Your task to perform on an android device: Set the phone to "Do not disturb". Image 0: 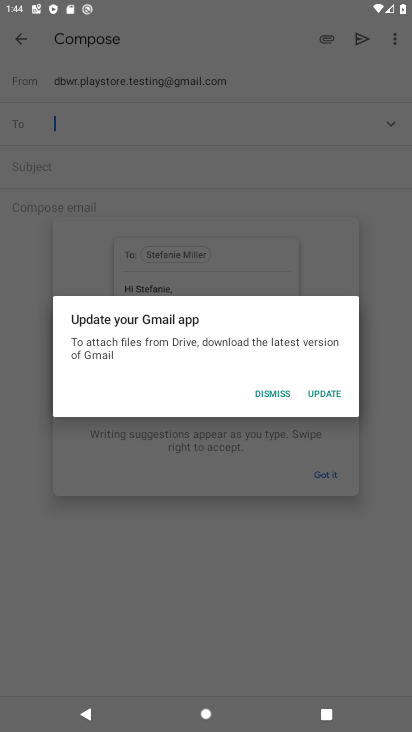
Step 0: press home button
Your task to perform on an android device: Set the phone to "Do not disturb". Image 1: 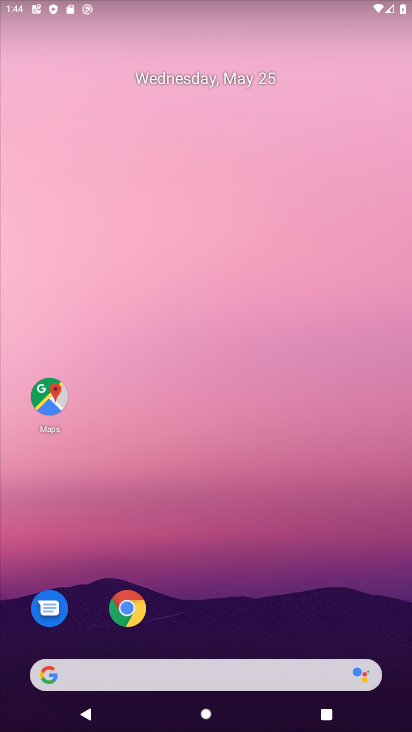
Step 1: drag from (138, 629) to (138, 300)
Your task to perform on an android device: Set the phone to "Do not disturb". Image 2: 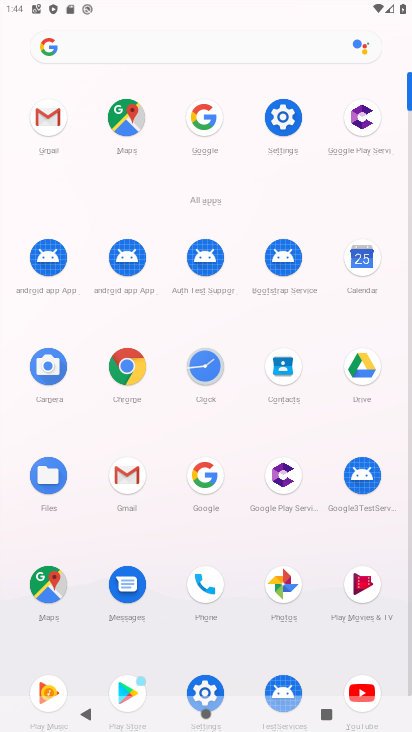
Step 2: click (294, 119)
Your task to perform on an android device: Set the phone to "Do not disturb". Image 3: 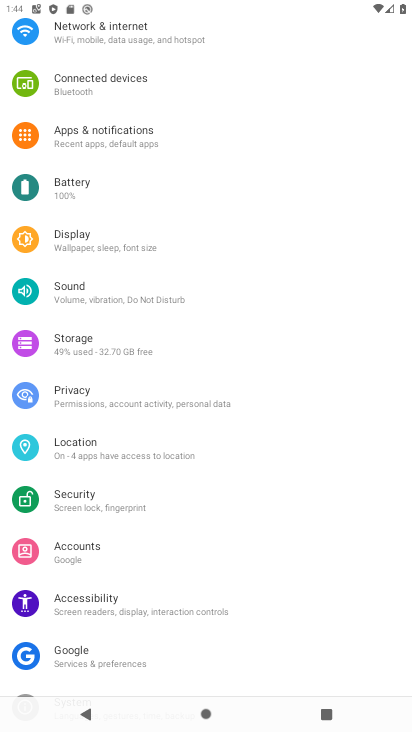
Step 3: click (156, 295)
Your task to perform on an android device: Set the phone to "Do not disturb". Image 4: 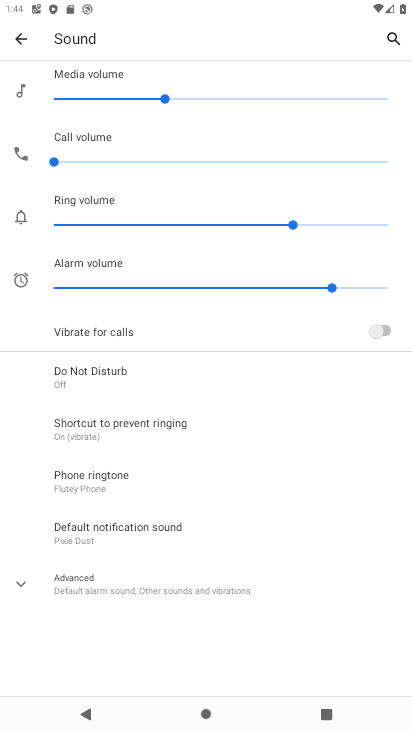
Step 4: click (128, 580)
Your task to perform on an android device: Set the phone to "Do not disturb". Image 5: 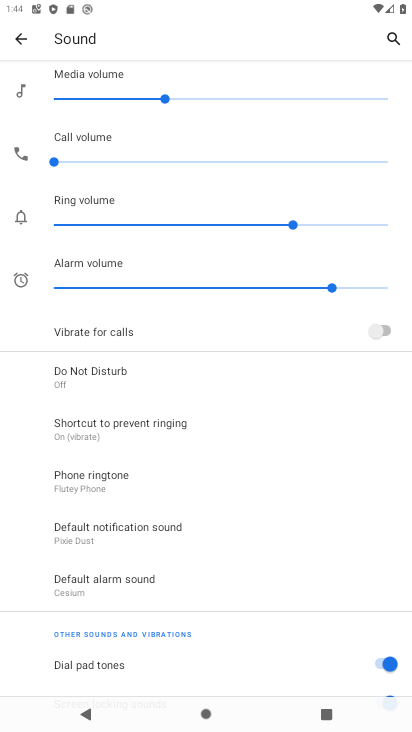
Step 5: drag from (98, 668) to (98, 338)
Your task to perform on an android device: Set the phone to "Do not disturb". Image 6: 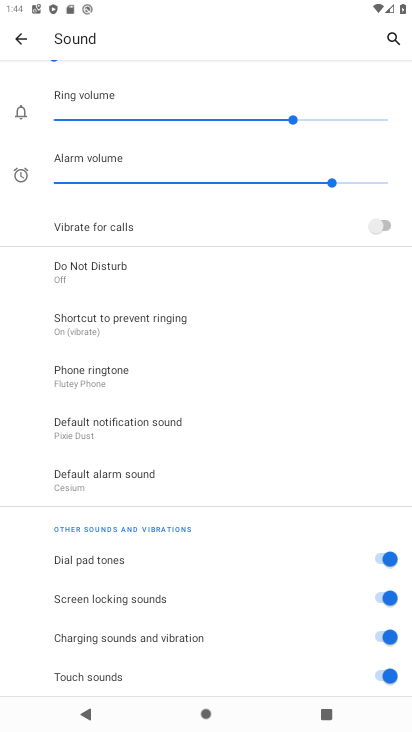
Step 6: click (80, 274)
Your task to perform on an android device: Set the phone to "Do not disturb". Image 7: 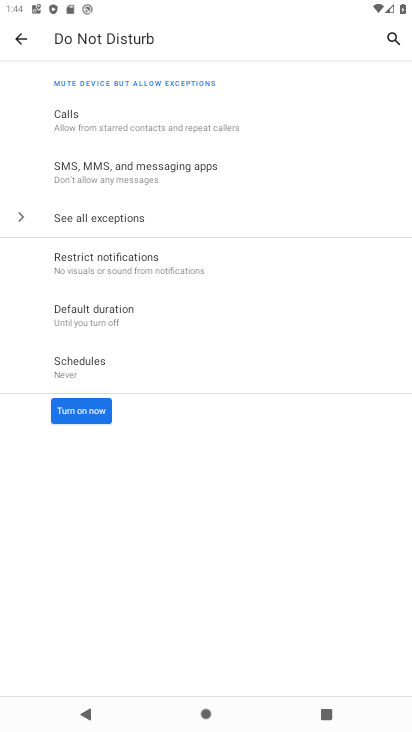
Step 7: click (79, 412)
Your task to perform on an android device: Set the phone to "Do not disturb". Image 8: 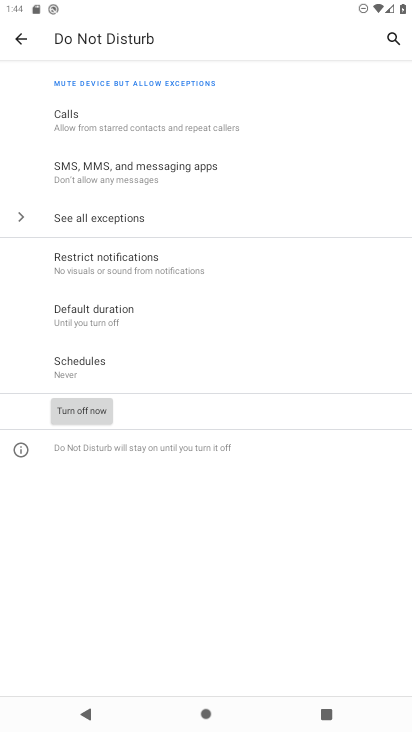
Step 8: task complete